Your task to perform on an android device: add a contact in the contacts app Image 0: 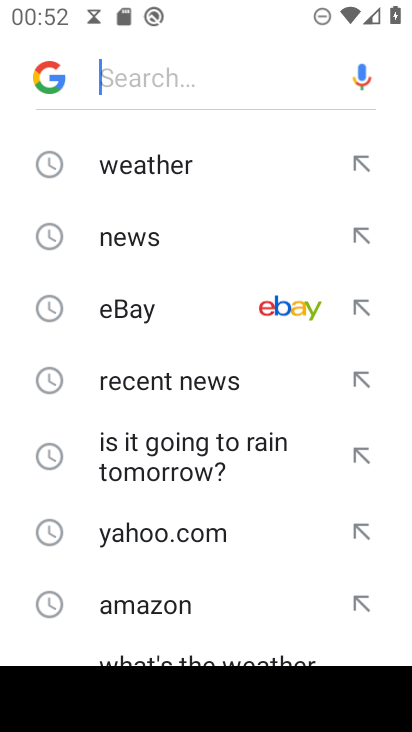
Step 0: press home button
Your task to perform on an android device: add a contact in the contacts app Image 1: 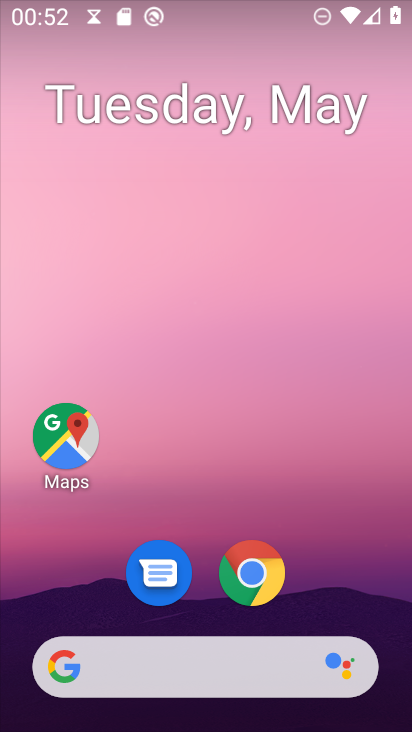
Step 1: drag from (347, 522) to (225, 46)
Your task to perform on an android device: add a contact in the contacts app Image 2: 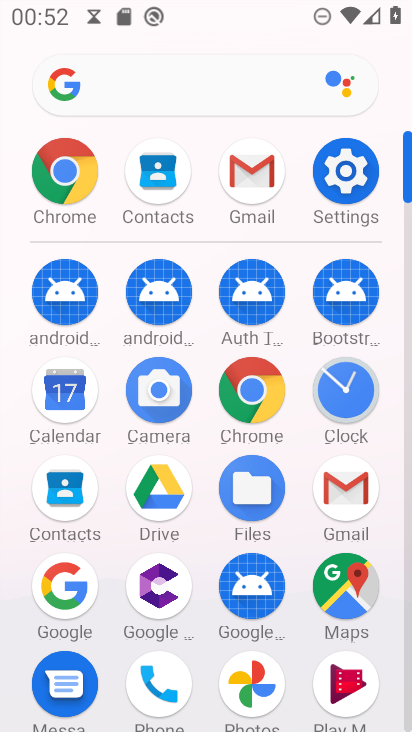
Step 2: click (168, 186)
Your task to perform on an android device: add a contact in the contacts app Image 3: 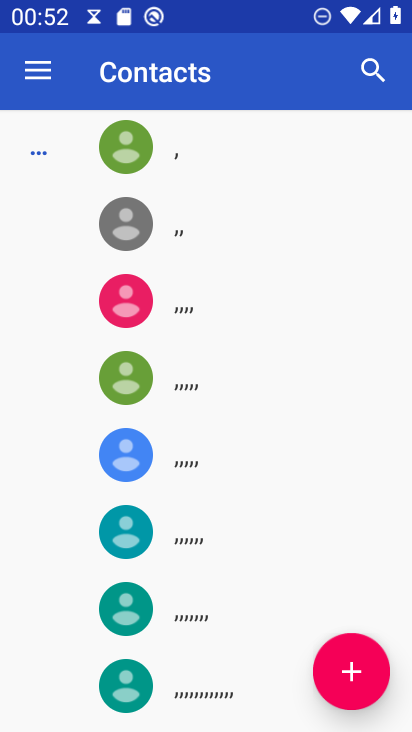
Step 3: click (362, 684)
Your task to perform on an android device: add a contact in the contacts app Image 4: 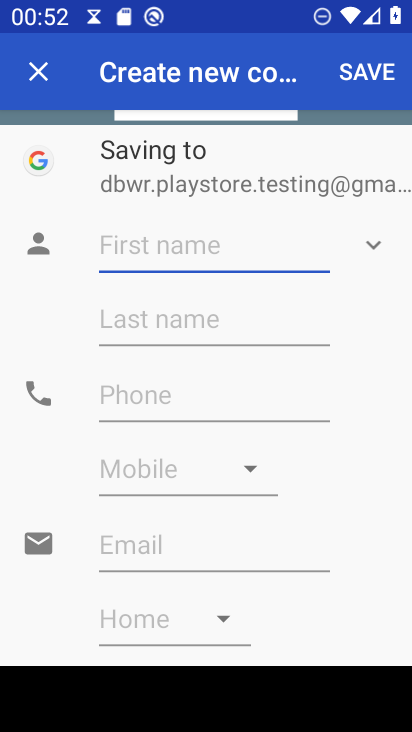
Step 4: type "ergd"
Your task to perform on an android device: add a contact in the contacts app Image 5: 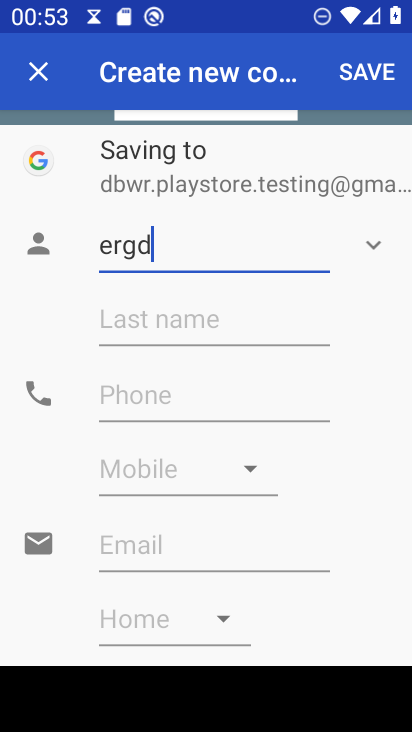
Step 5: type ""
Your task to perform on an android device: add a contact in the contacts app Image 6: 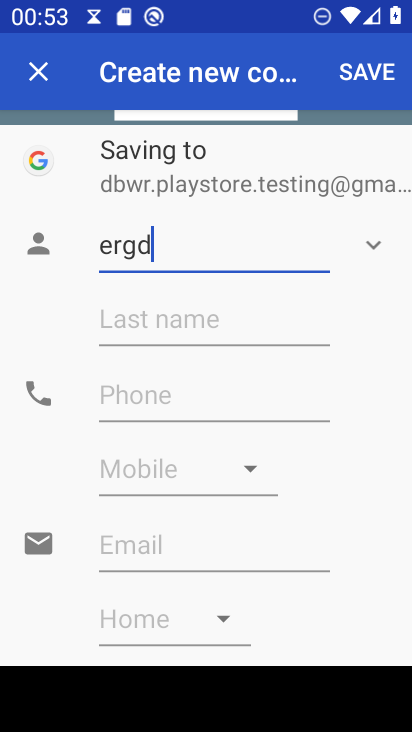
Step 6: click (256, 310)
Your task to perform on an android device: add a contact in the contacts app Image 7: 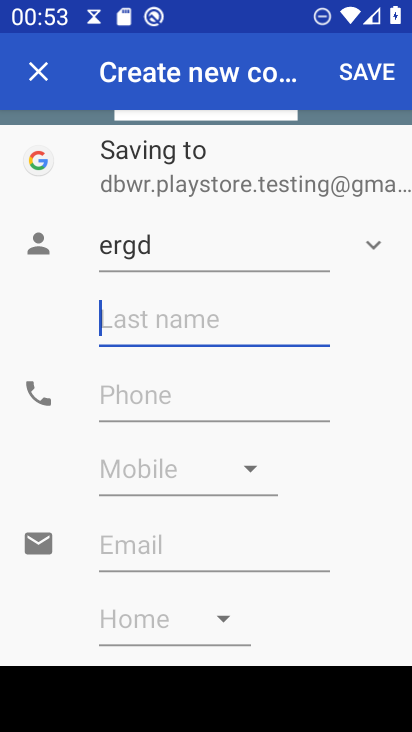
Step 7: type "kjgj"
Your task to perform on an android device: add a contact in the contacts app Image 8: 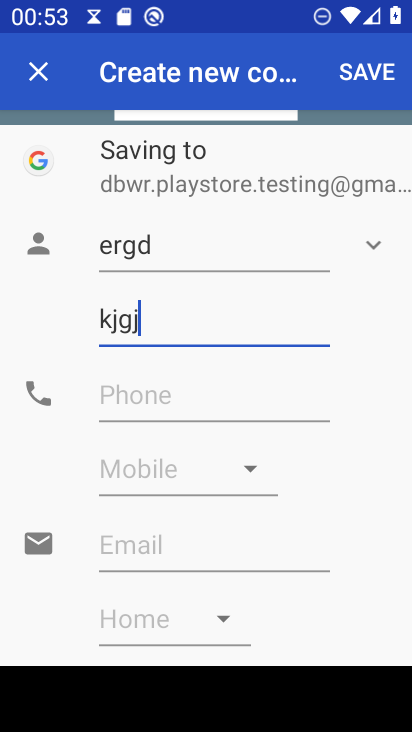
Step 8: type ""
Your task to perform on an android device: add a contact in the contacts app Image 9: 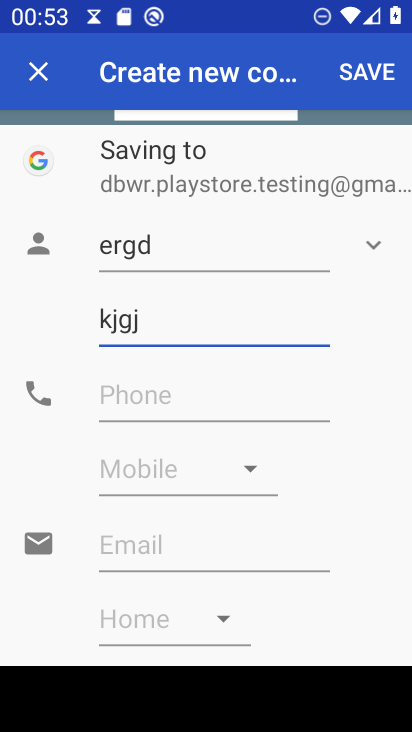
Step 9: click (218, 387)
Your task to perform on an android device: add a contact in the contacts app Image 10: 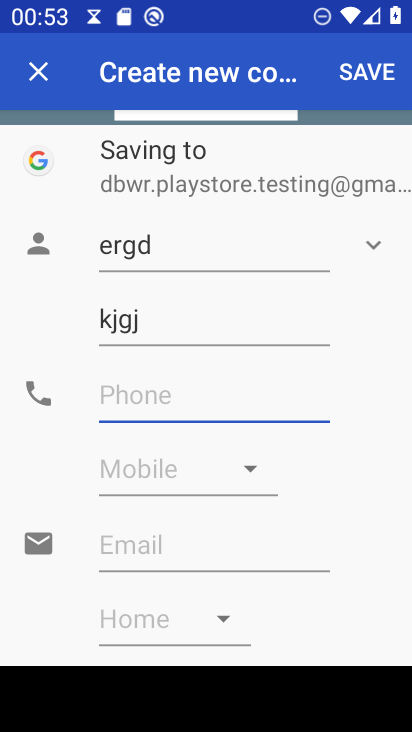
Step 10: type "674567456"
Your task to perform on an android device: add a contact in the contacts app Image 11: 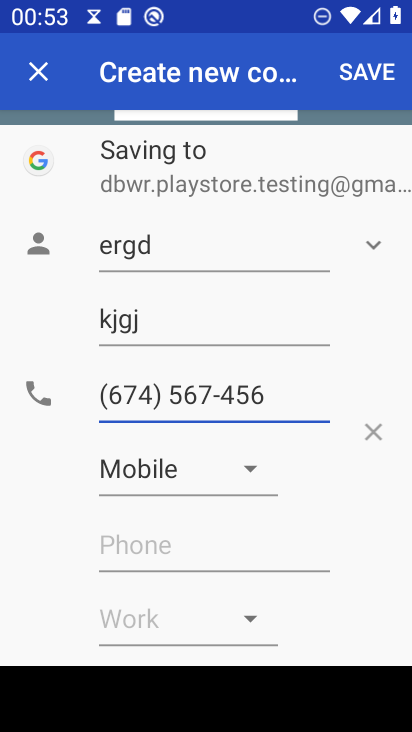
Step 11: task complete